Your task to perform on an android device: Open maps Image 0: 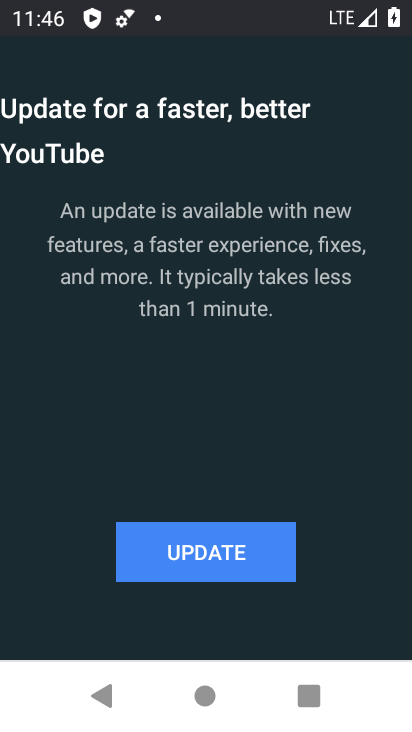
Step 0: press home button
Your task to perform on an android device: Open maps Image 1: 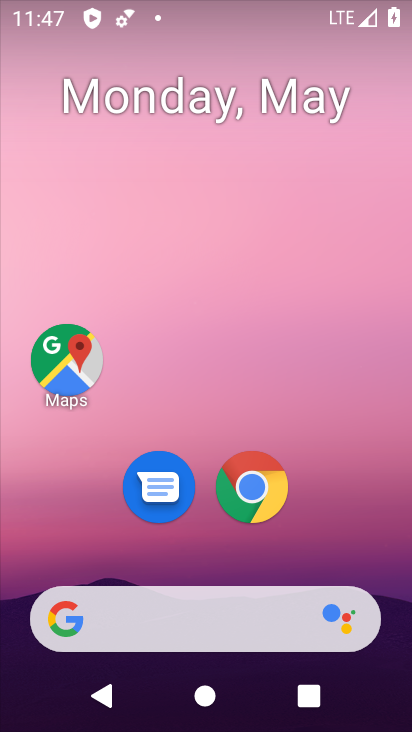
Step 1: click (74, 345)
Your task to perform on an android device: Open maps Image 2: 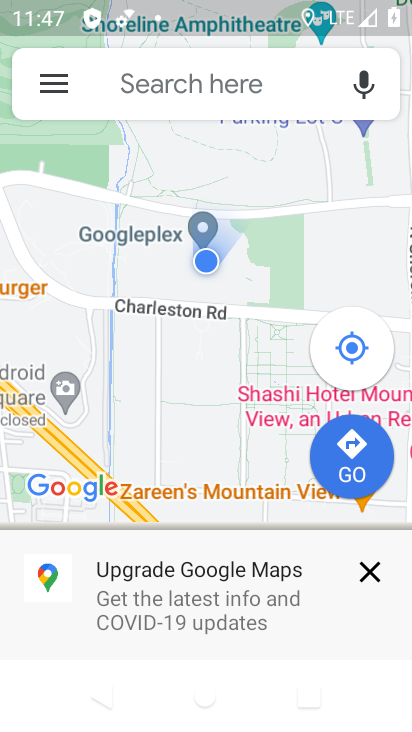
Step 2: click (374, 564)
Your task to perform on an android device: Open maps Image 3: 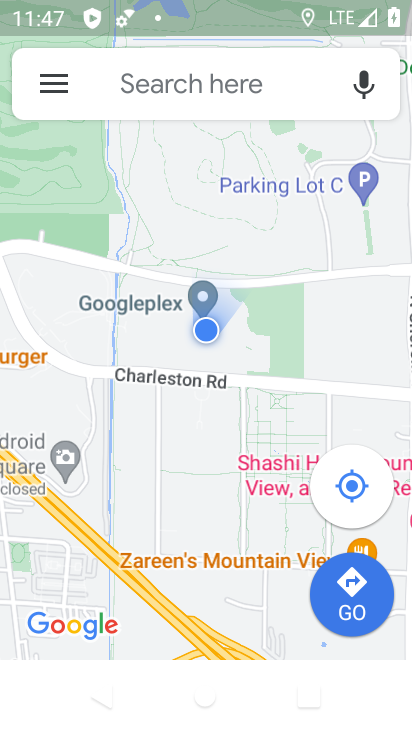
Step 3: task complete